Your task to perform on an android device: Clear the cart on bestbuy. Add jbl charge 4 to the cart on bestbuy Image 0: 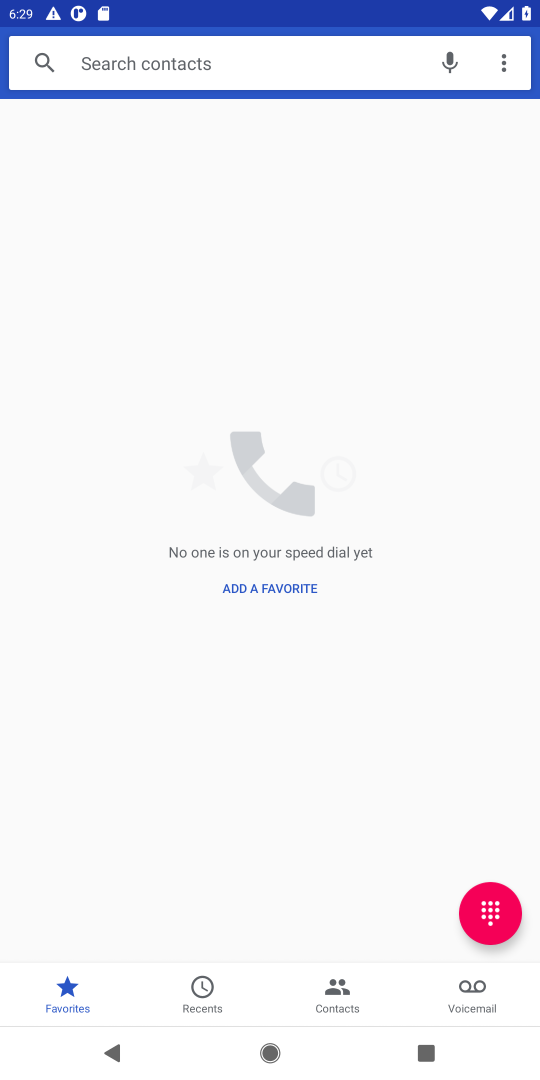
Step 0: press home button
Your task to perform on an android device: Clear the cart on bestbuy. Add jbl charge 4 to the cart on bestbuy Image 1: 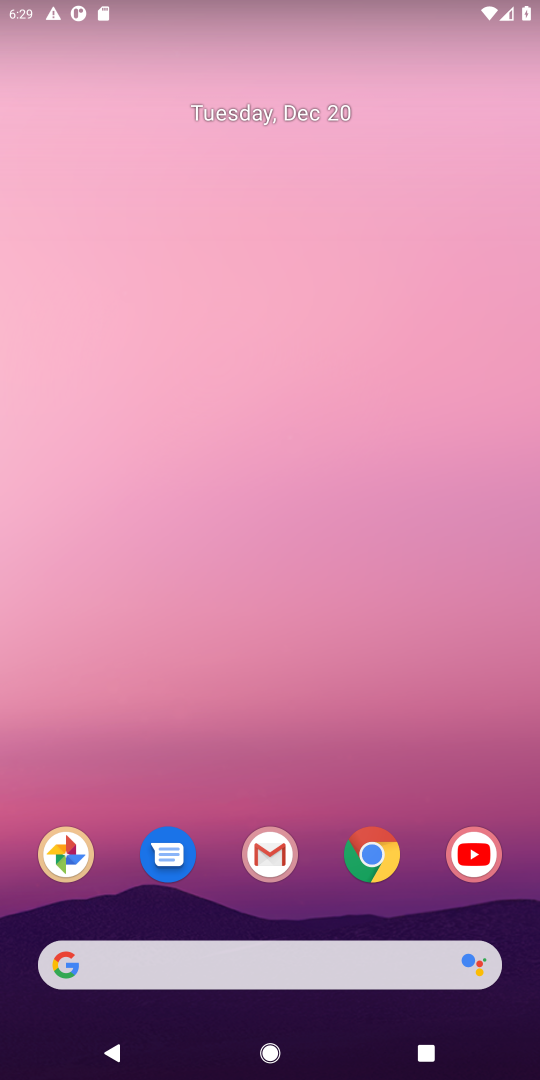
Step 1: click (370, 860)
Your task to perform on an android device: Clear the cart on bestbuy. Add jbl charge 4 to the cart on bestbuy Image 2: 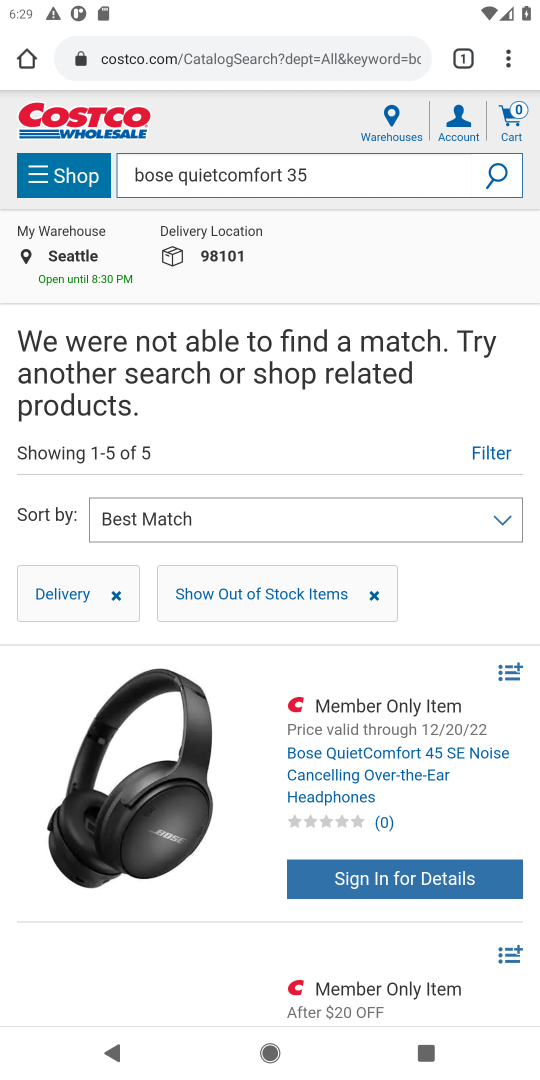
Step 2: click (229, 65)
Your task to perform on an android device: Clear the cart on bestbuy. Add jbl charge 4 to the cart on bestbuy Image 3: 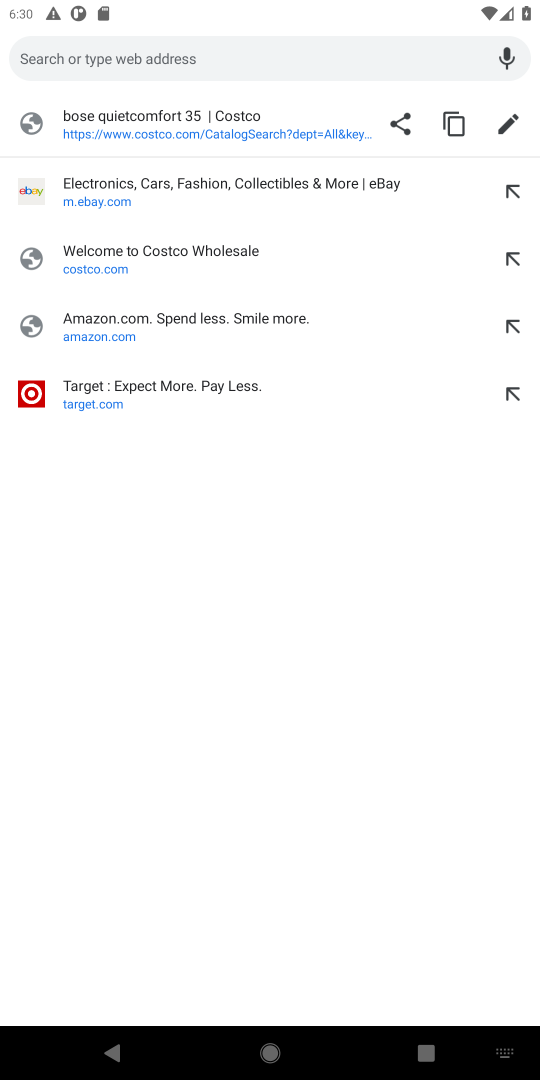
Step 3: type "bestbuy.com"
Your task to perform on an android device: Clear the cart on bestbuy. Add jbl charge 4 to the cart on bestbuy Image 4: 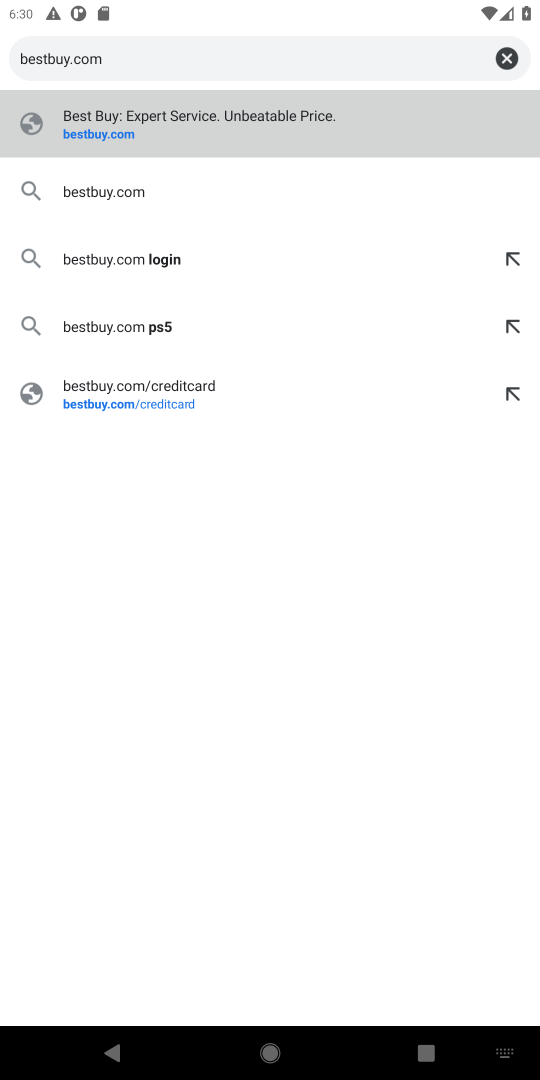
Step 4: click (83, 144)
Your task to perform on an android device: Clear the cart on bestbuy. Add jbl charge 4 to the cart on bestbuy Image 5: 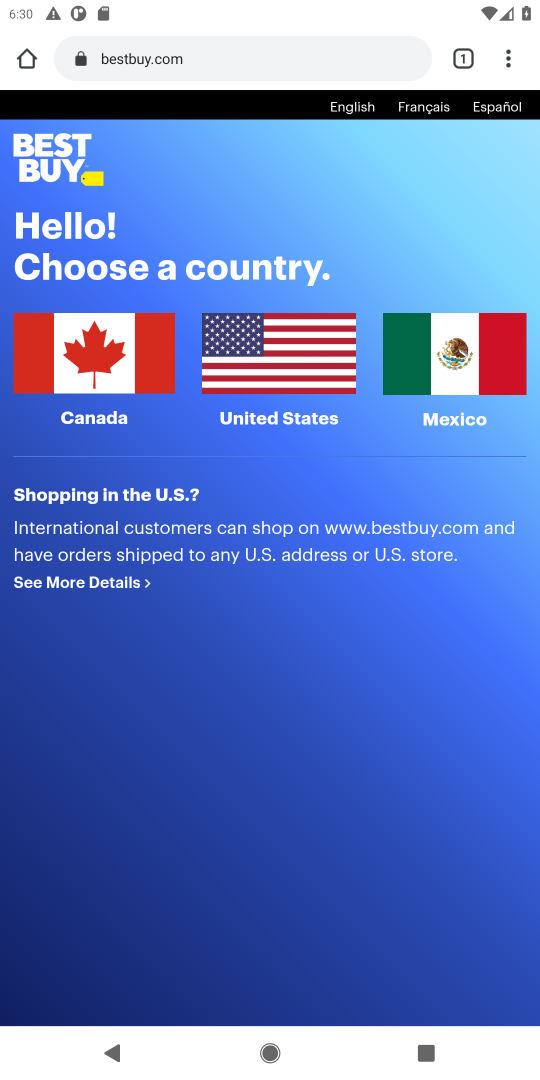
Step 5: click (288, 381)
Your task to perform on an android device: Clear the cart on bestbuy. Add jbl charge 4 to the cart on bestbuy Image 6: 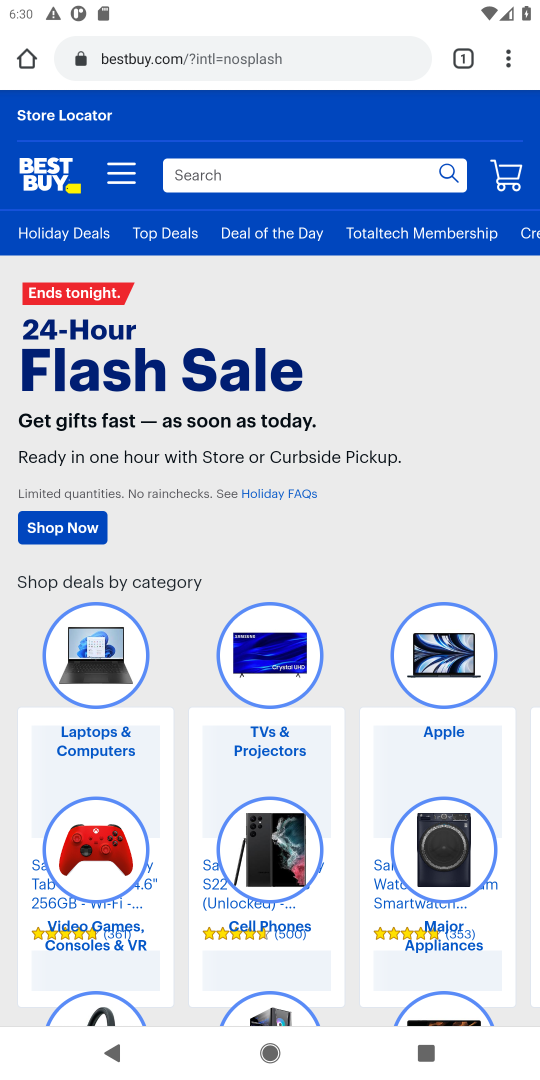
Step 6: click (507, 183)
Your task to perform on an android device: Clear the cart on bestbuy. Add jbl charge 4 to the cart on bestbuy Image 7: 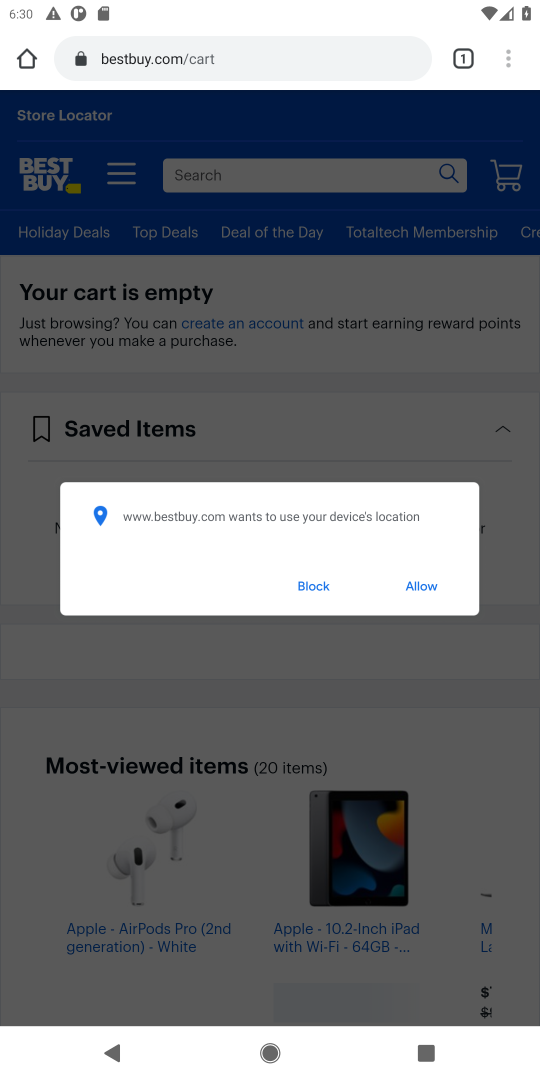
Step 7: click (318, 584)
Your task to perform on an android device: Clear the cart on bestbuy. Add jbl charge 4 to the cart on bestbuy Image 8: 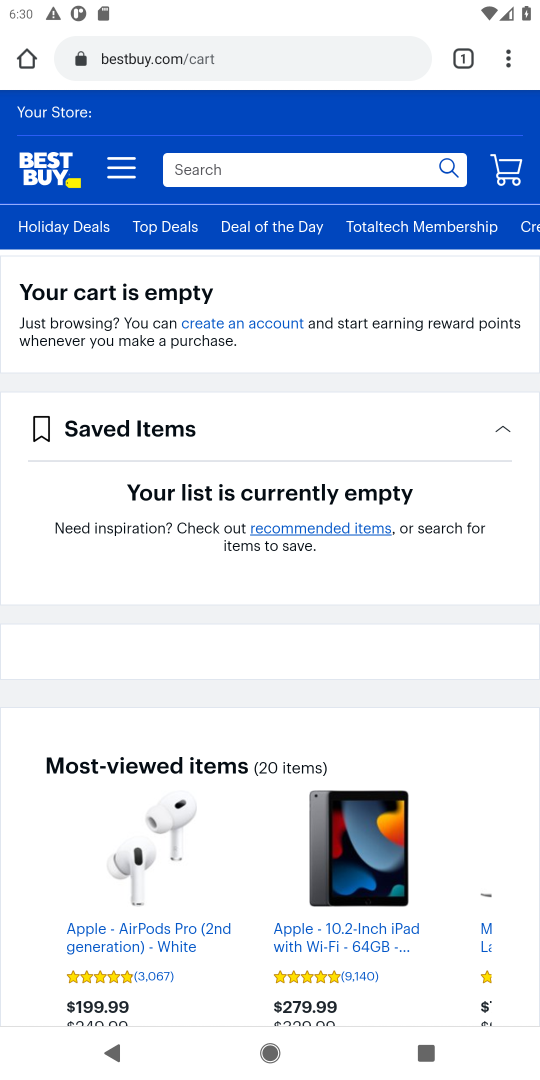
Step 8: click (206, 178)
Your task to perform on an android device: Clear the cart on bestbuy. Add jbl charge 4 to the cart on bestbuy Image 9: 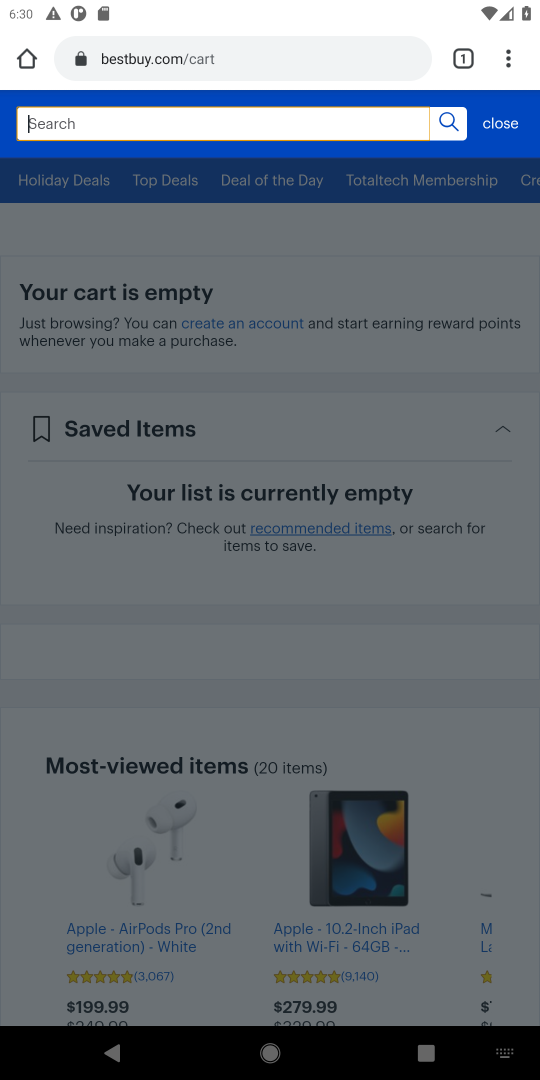
Step 9: type " jbl charge 4"
Your task to perform on an android device: Clear the cart on bestbuy. Add jbl charge 4 to the cart on bestbuy Image 10: 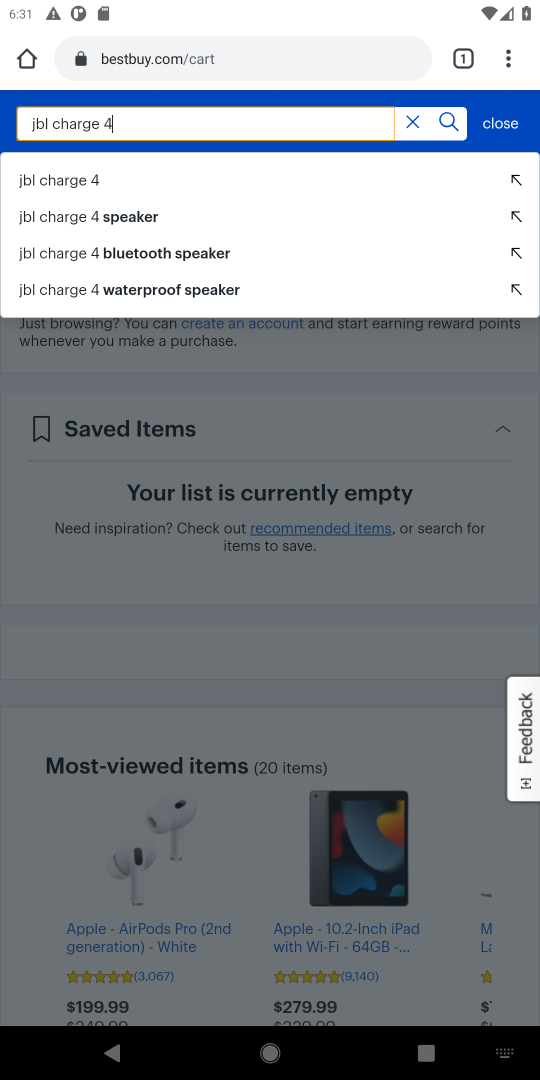
Step 10: click (58, 180)
Your task to perform on an android device: Clear the cart on bestbuy. Add jbl charge 4 to the cart on bestbuy Image 11: 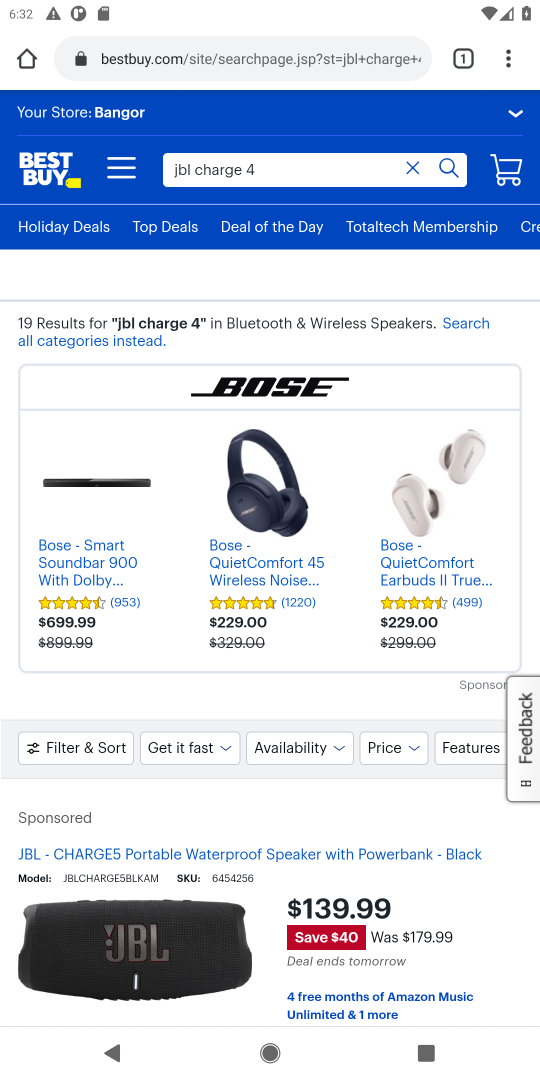
Step 11: task complete